Your task to perform on an android device: toggle airplane mode Image 0: 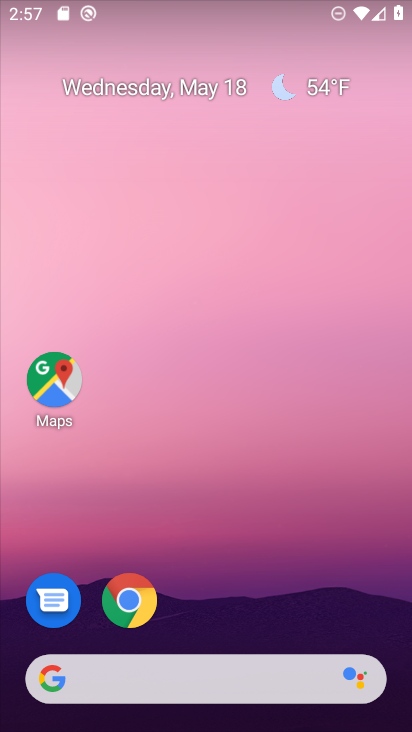
Step 0: drag from (221, 620) to (290, 10)
Your task to perform on an android device: toggle airplane mode Image 1: 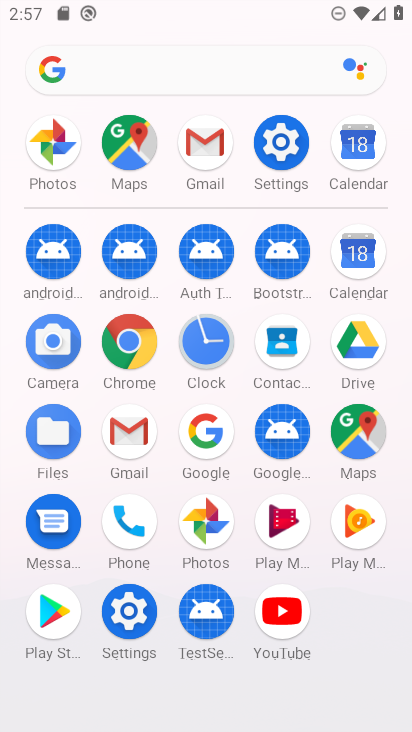
Step 1: click (288, 156)
Your task to perform on an android device: toggle airplane mode Image 2: 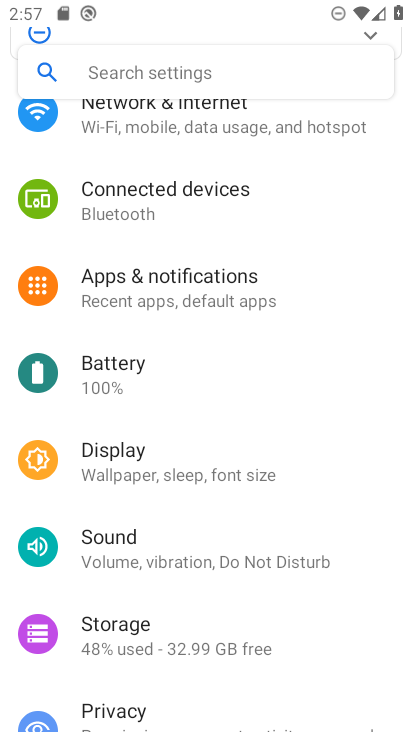
Step 2: drag from (248, 184) to (264, 591)
Your task to perform on an android device: toggle airplane mode Image 3: 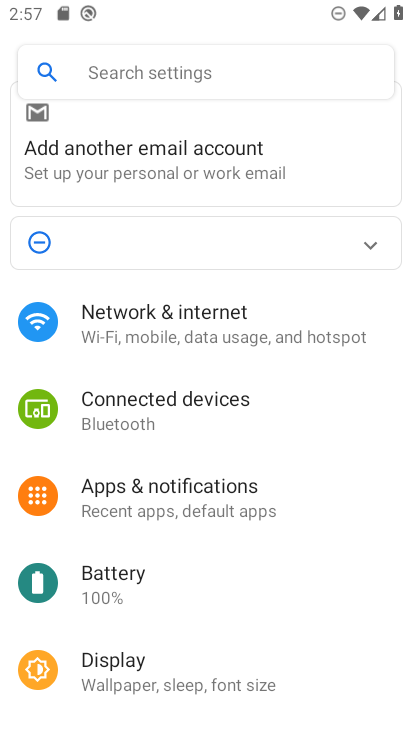
Step 3: click (232, 341)
Your task to perform on an android device: toggle airplane mode Image 4: 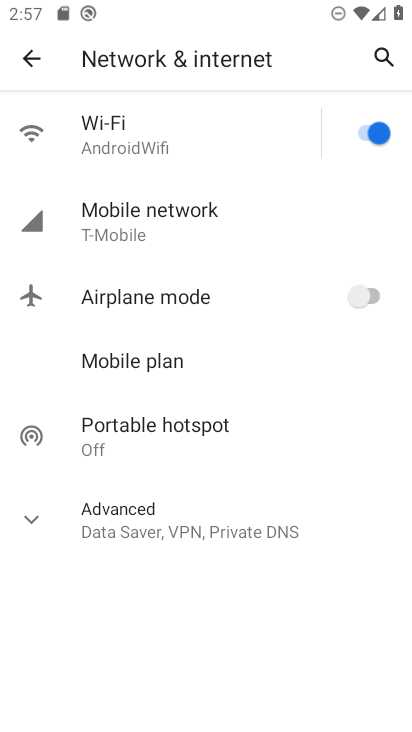
Step 4: click (386, 294)
Your task to perform on an android device: toggle airplane mode Image 5: 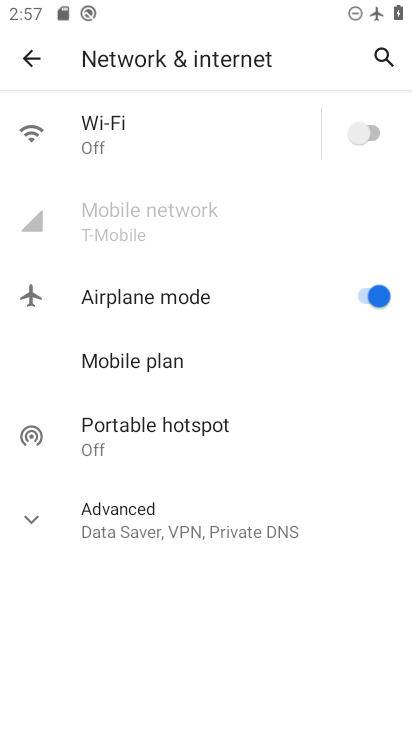
Step 5: task complete